Your task to perform on an android device: turn on translation in the chrome app Image 0: 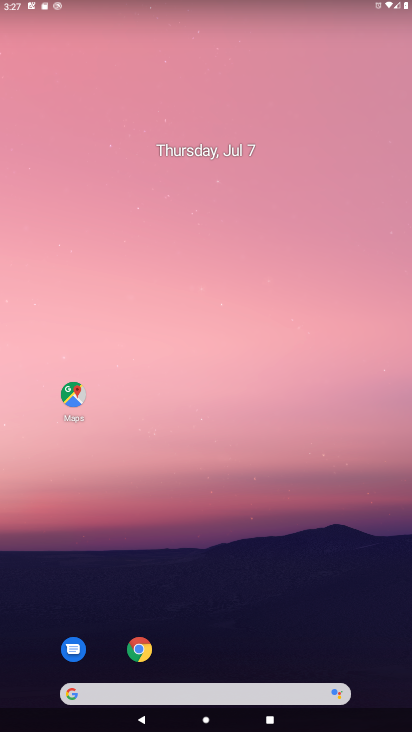
Step 0: click (143, 647)
Your task to perform on an android device: turn on translation in the chrome app Image 1: 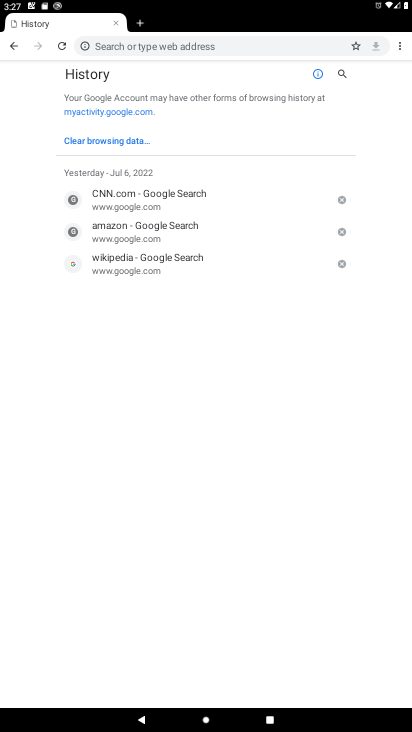
Step 1: drag from (399, 43) to (313, 215)
Your task to perform on an android device: turn on translation in the chrome app Image 2: 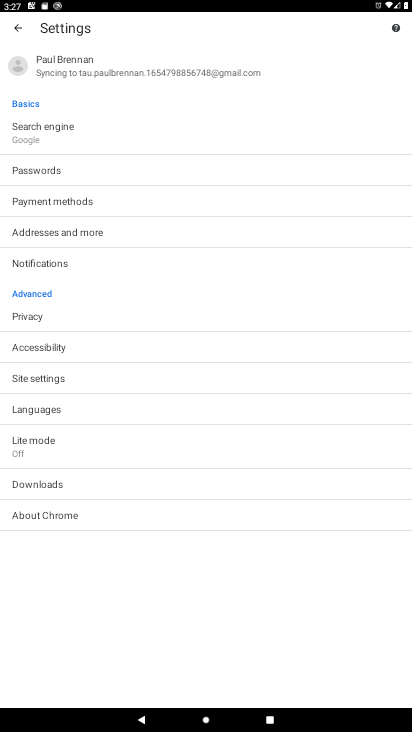
Step 2: click (50, 409)
Your task to perform on an android device: turn on translation in the chrome app Image 3: 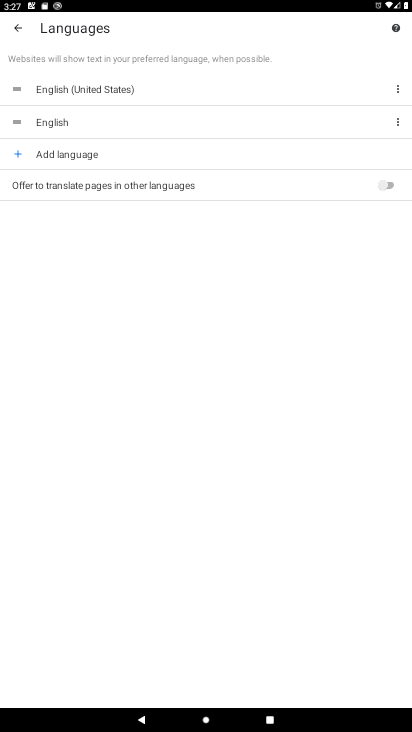
Step 3: click (389, 187)
Your task to perform on an android device: turn on translation in the chrome app Image 4: 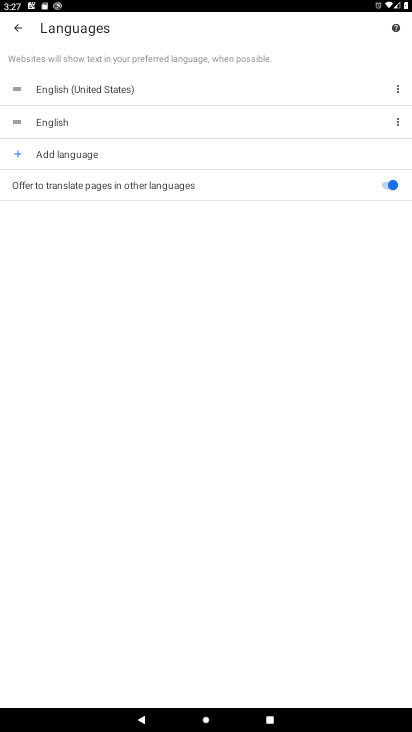
Step 4: task complete